Your task to perform on an android device: Open Maps and search for coffee Image 0: 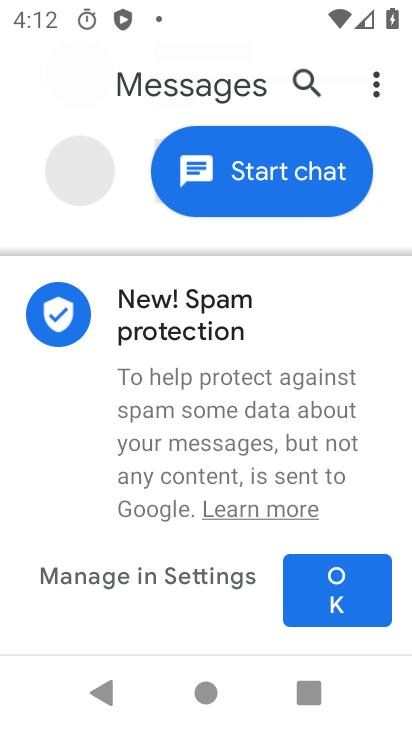
Step 0: press home button
Your task to perform on an android device: Open Maps and search for coffee Image 1: 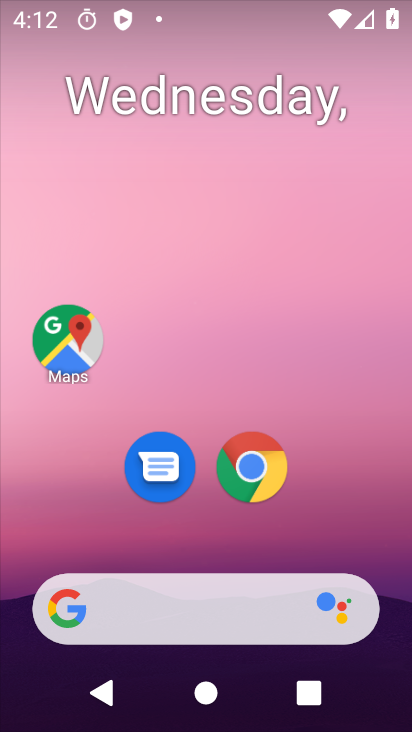
Step 1: click (59, 346)
Your task to perform on an android device: Open Maps and search for coffee Image 2: 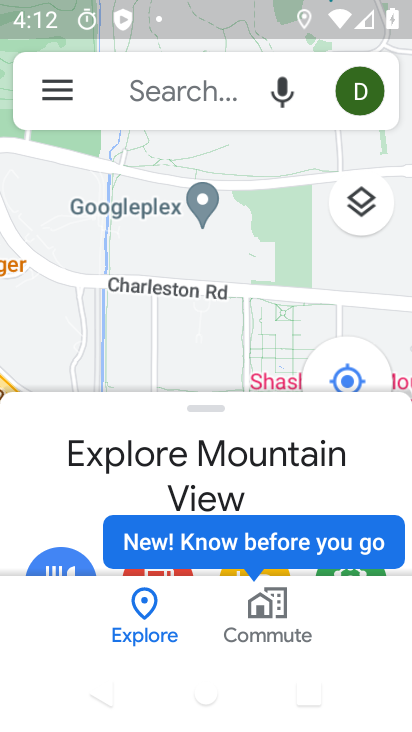
Step 2: click (201, 86)
Your task to perform on an android device: Open Maps and search for coffee Image 3: 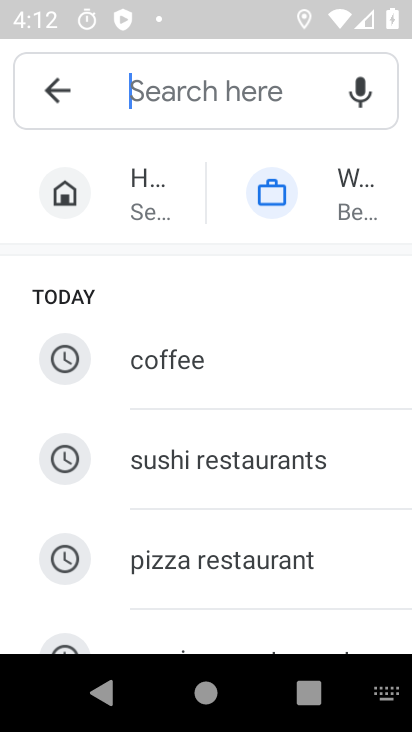
Step 3: click (232, 362)
Your task to perform on an android device: Open Maps and search for coffee Image 4: 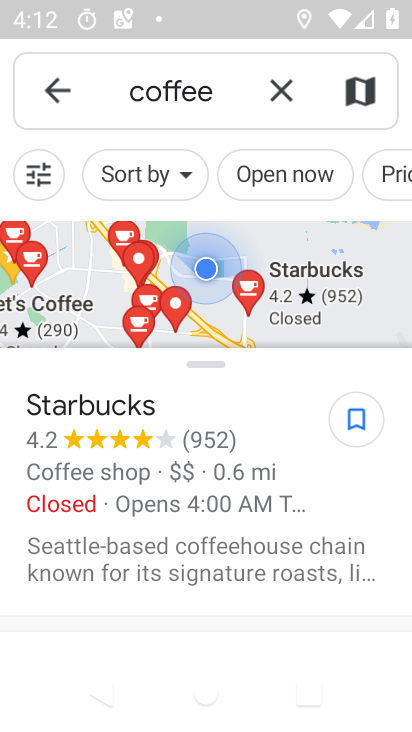
Step 4: task complete